Your task to perform on an android device: find photos in the google photos app Image 0: 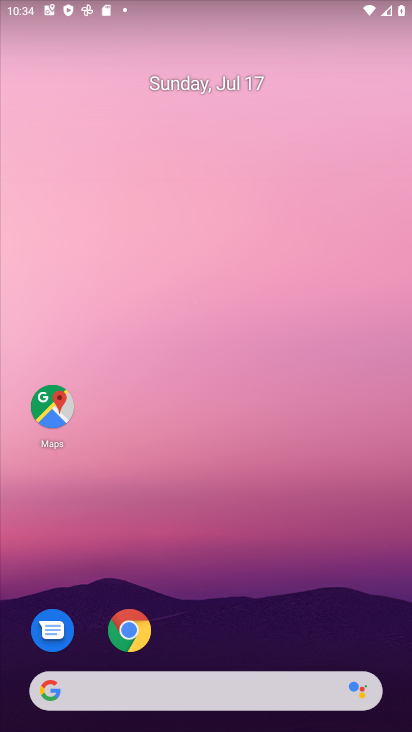
Step 0: drag from (266, 618) to (270, 95)
Your task to perform on an android device: find photos in the google photos app Image 1: 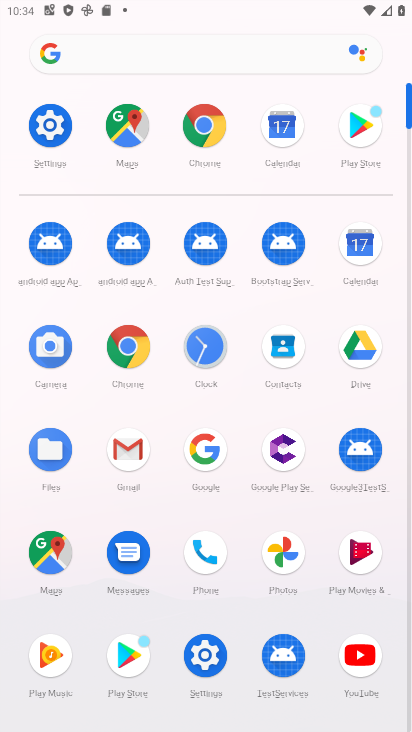
Step 1: click (288, 570)
Your task to perform on an android device: find photos in the google photos app Image 2: 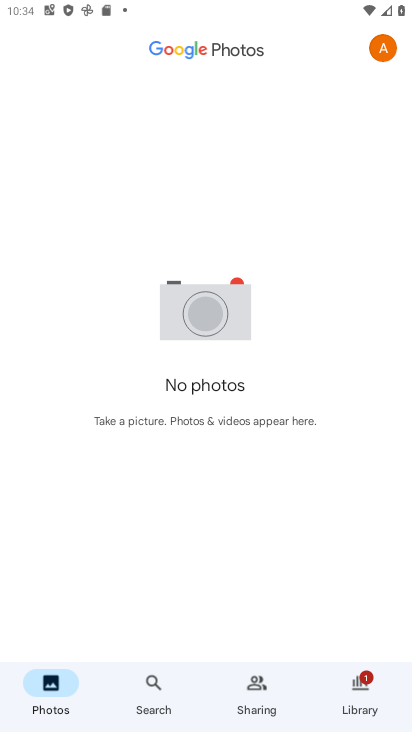
Step 2: task complete